Your task to perform on an android device: When is my next appointment? Image 0: 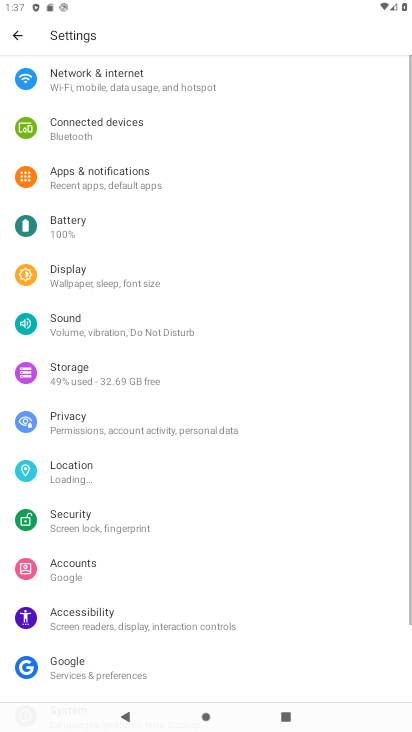
Step 0: press home button
Your task to perform on an android device: When is my next appointment? Image 1: 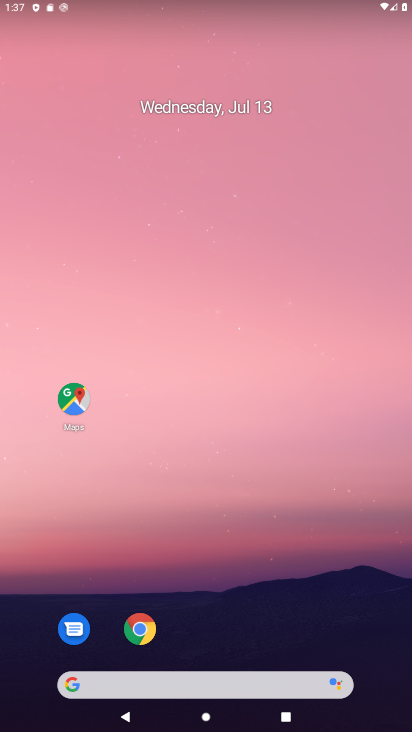
Step 1: drag from (253, 645) to (268, 87)
Your task to perform on an android device: When is my next appointment? Image 2: 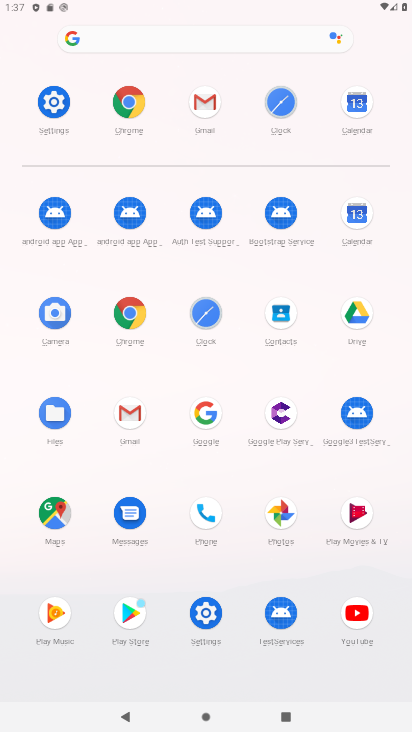
Step 2: click (355, 113)
Your task to perform on an android device: When is my next appointment? Image 3: 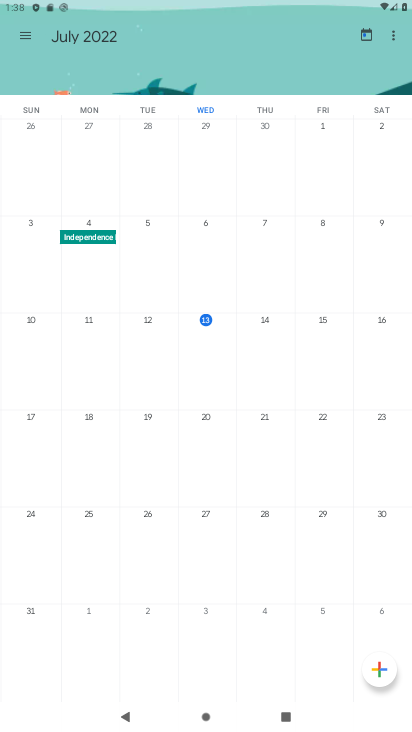
Step 3: task complete